Your task to perform on an android device: empty trash in google photos Image 0: 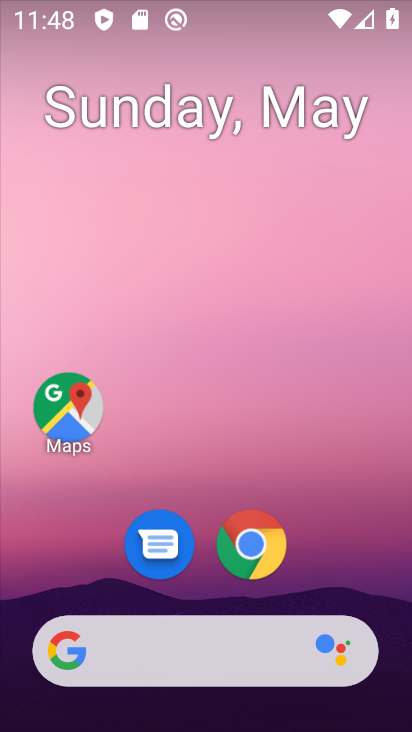
Step 0: drag from (292, 595) to (271, 0)
Your task to perform on an android device: empty trash in google photos Image 1: 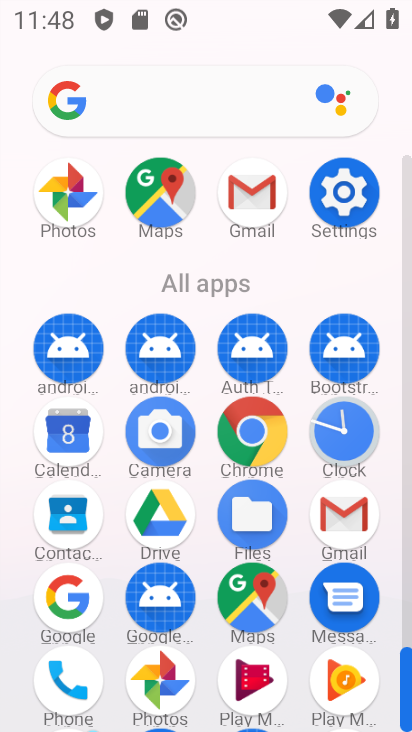
Step 1: drag from (297, 528) to (292, 210)
Your task to perform on an android device: empty trash in google photos Image 2: 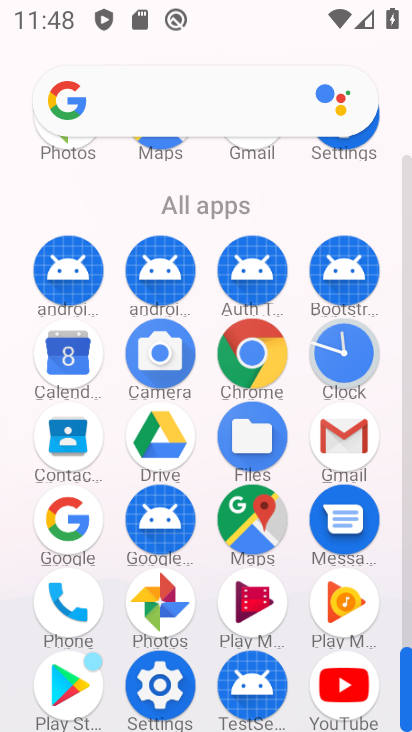
Step 2: click (163, 608)
Your task to perform on an android device: empty trash in google photos Image 3: 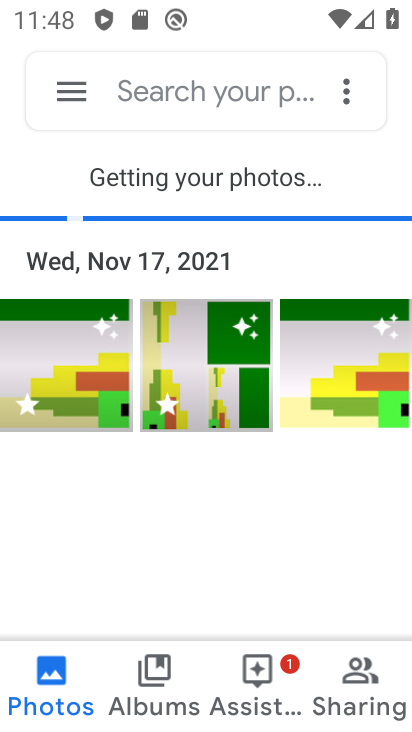
Step 3: click (77, 92)
Your task to perform on an android device: empty trash in google photos Image 4: 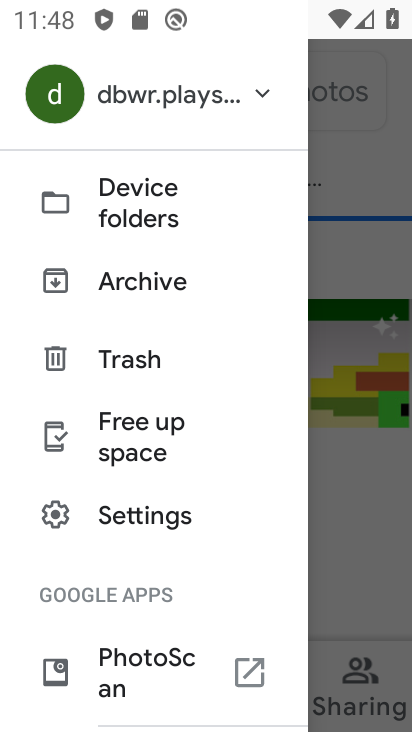
Step 4: click (347, 545)
Your task to perform on an android device: empty trash in google photos Image 5: 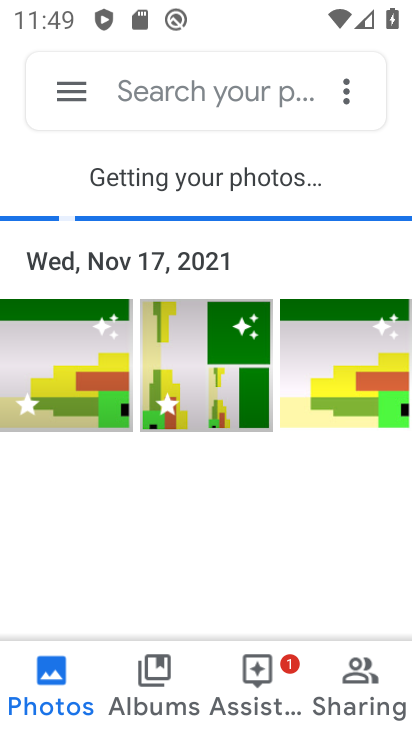
Step 5: click (359, 686)
Your task to perform on an android device: empty trash in google photos Image 6: 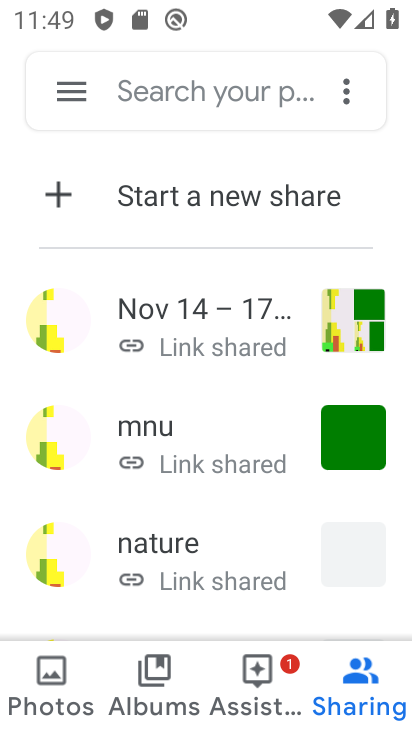
Step 6: click (272, 701)
Your task to perform on an android device: empty trash in google photos Image 7: 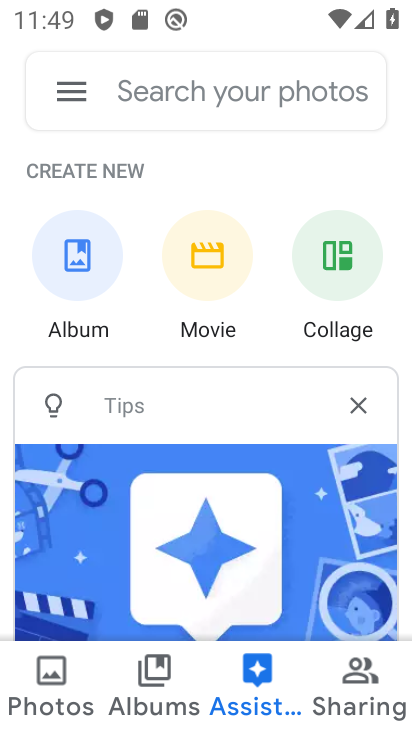
Step 7: click (378, 695)
Your task to perform on an android device: empty trash in google photos Image 8: 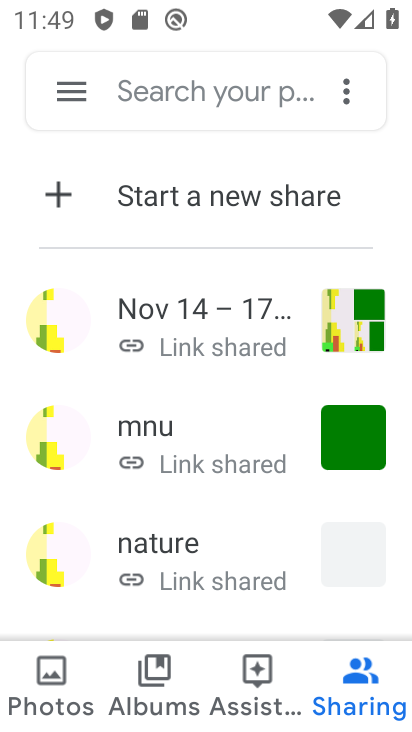
Step 8: click (60, 680)
Your task to perform on an android device: empty trash in google photos Image 9: 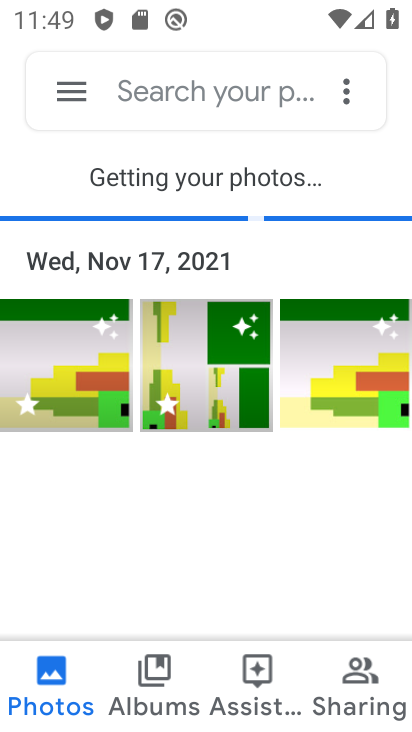
Step 9: click (59, 75)
Your task to perform on an android device: empty trash in google photos Image 10: 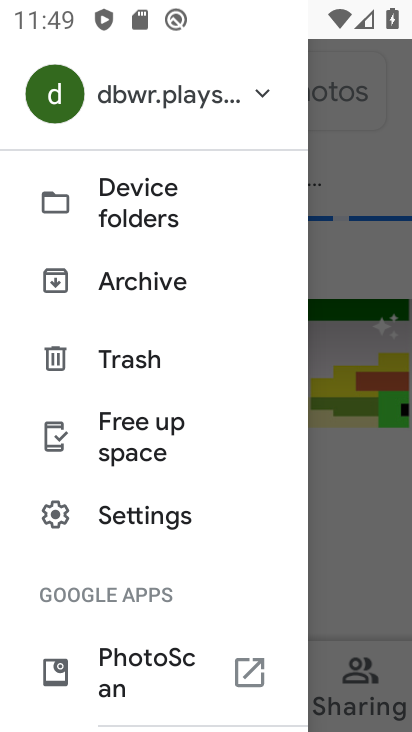
Step 10: drag from (180, 628) to (177, 429)
Your task to perform on an android device: empty trash in google photos Image 11: 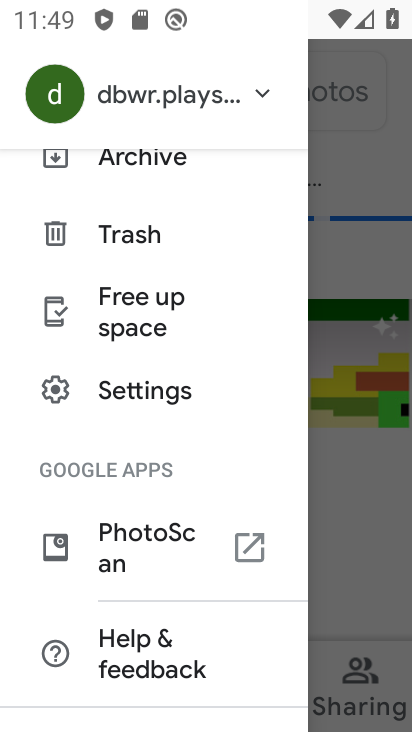
Step 11: click (146, 245)
Your task to perform on an android device: empty trash in google photos Image 12: 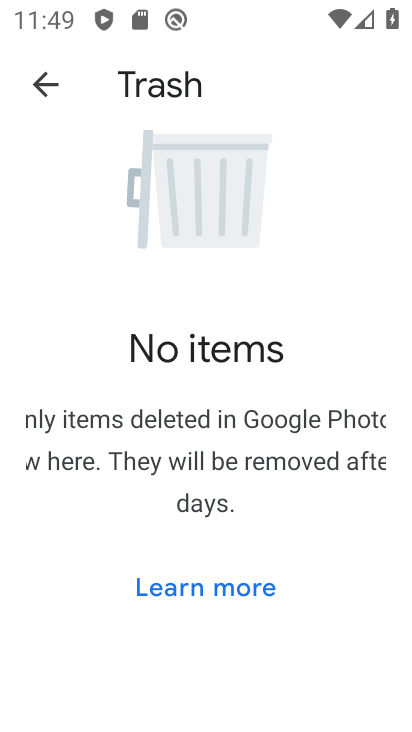
Step 12: task complete